Your task to perform on an android device: Open Maps and search for coffee Image 0: 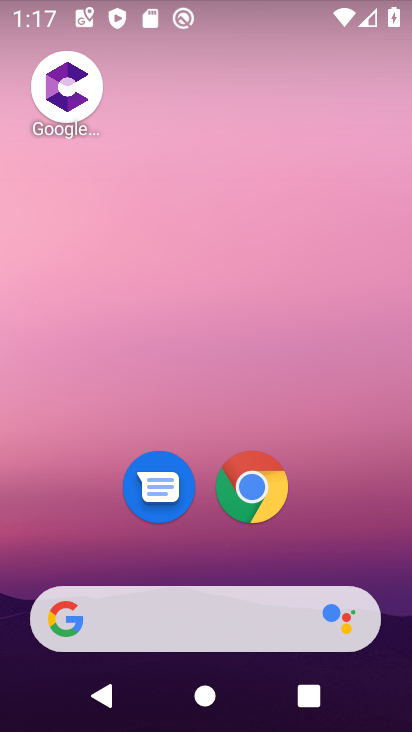
Step 0: drag from (262, 540) to (201, 3)
Your task to perform on an android device: Open Maps and search for coffee Image 1: 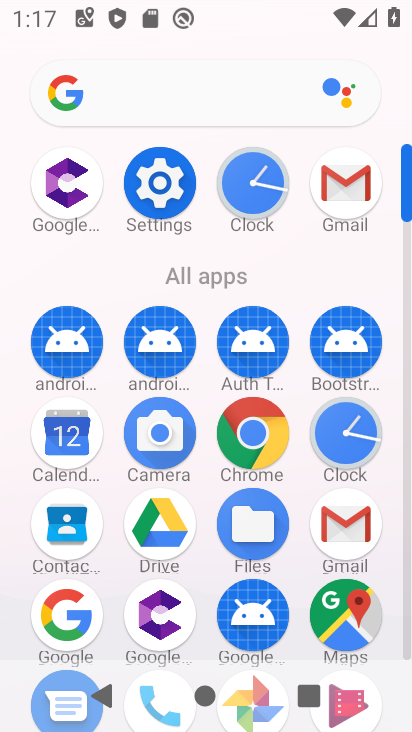
Step 1: click (359, 591)
Your task to perform on an android device: Open Maps and search for coffee Image 2: 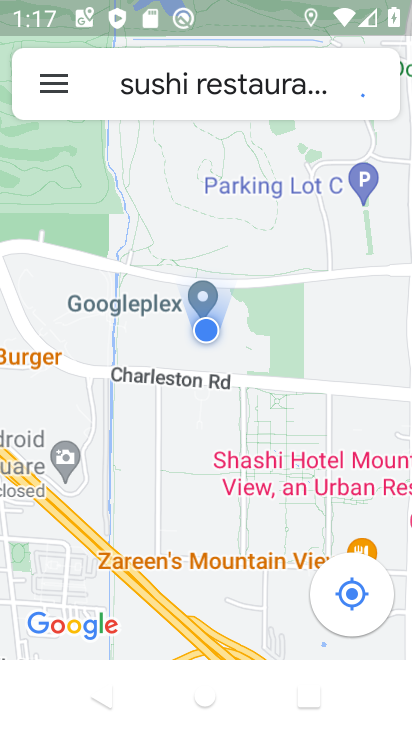
Step 2: click (185, 94)
Your task to perform on an android device: Open Maps and search for coffee Image 3: 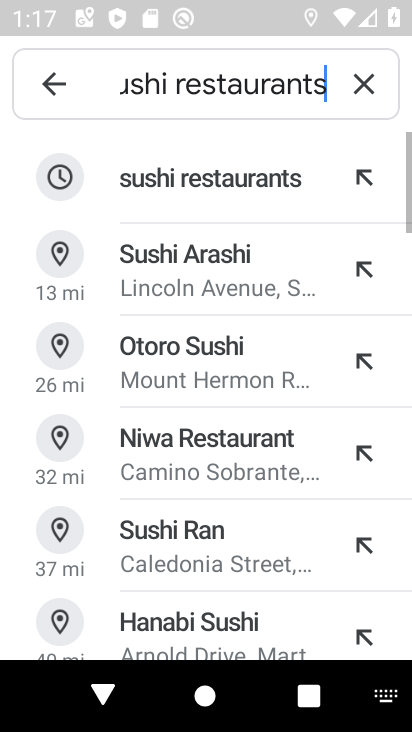
Step 3: click (356, 74)
Your task to perform on an android device: Open Maps and search for coffee Image 4: 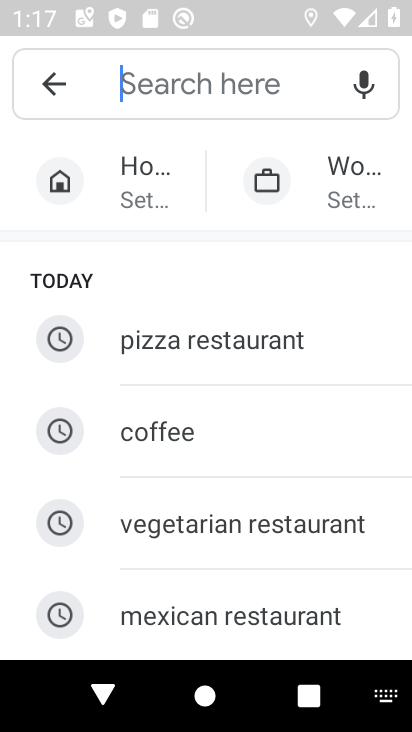
Step 4: click (204, 440)
Your task to perform on an android device: Open Maps and search for coffee Image 5: 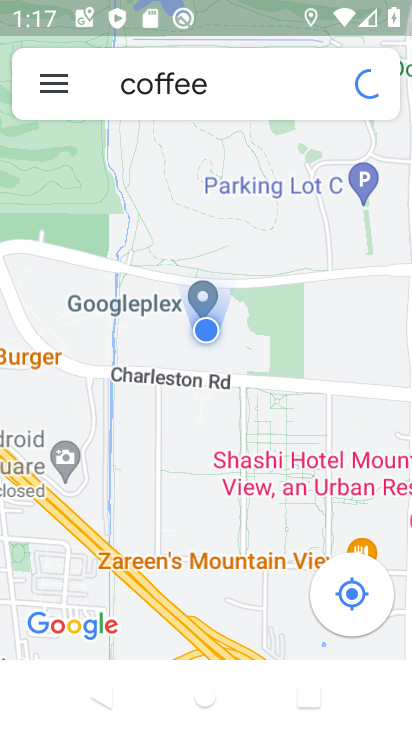
Step 5: task complete